Your task to perform on an android device: Go to ESPN.com Image 0: 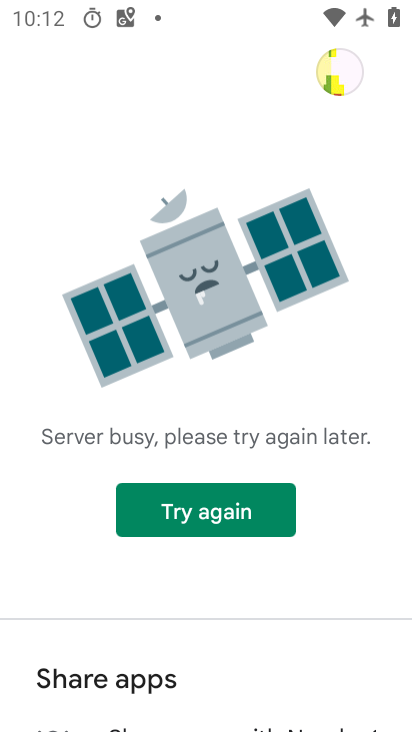
Step 0: press home button
Your task to perform on an android device: Go to ESPN.com Image 1: 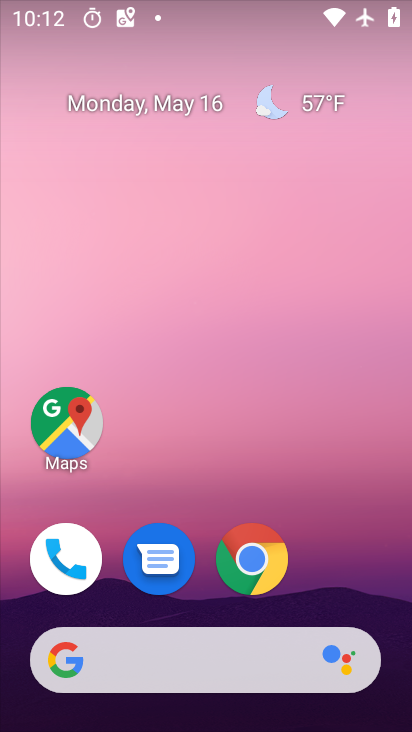
Step 1: click (270, 574)
Your task to perform on an android device: Go to ESPN.com Image 2: 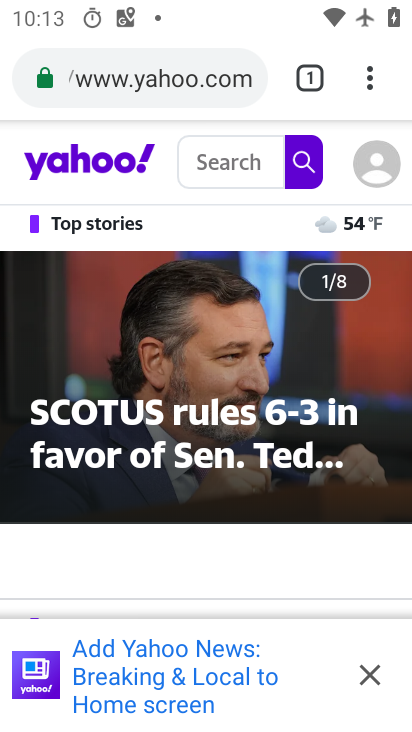
Step 2: click (201, 82)
Your task to perform on an android device: Go to ESPN.com Image 3: 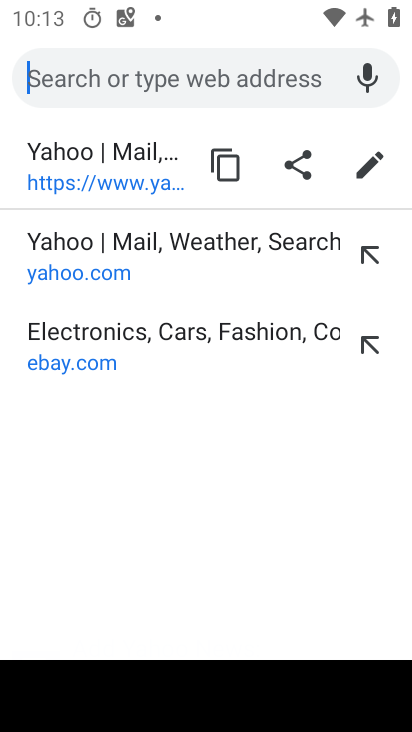
Step 3: type "espn.com"
Your task to perform on an android device: Go to ESPN.com Image 4: 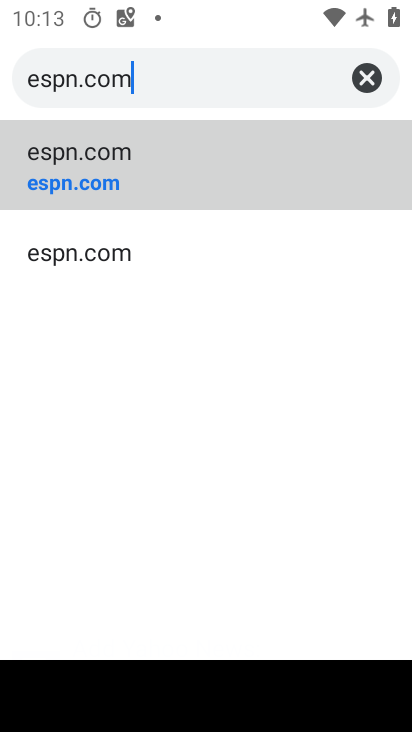
Step 4: click (98, 186)
Your task to perform on an android device: Go to ESPN.com Image 5: 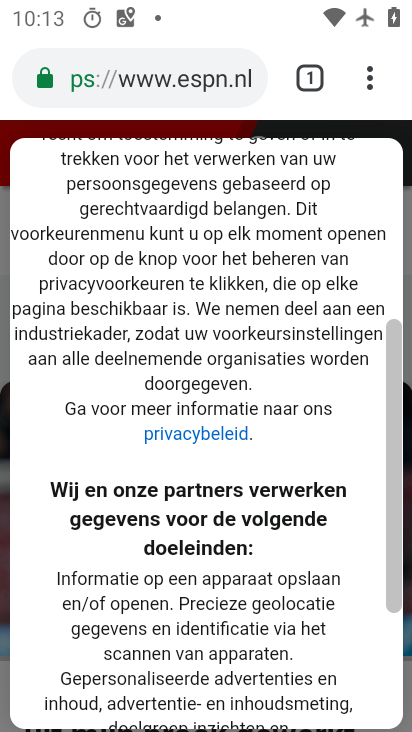
Step 5: task complete